Your task to perform on an android device: turn on notifications settings in the gmail app Image 0: 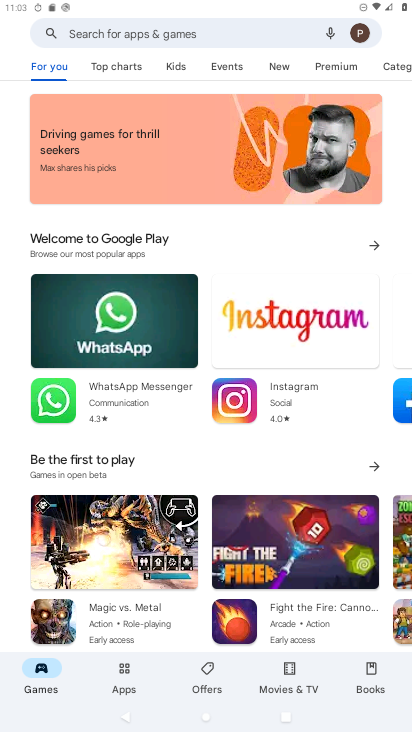
Step 0: press home button
Your task to perform on an android device: turn on notifications settings in the gmail app Image 1: 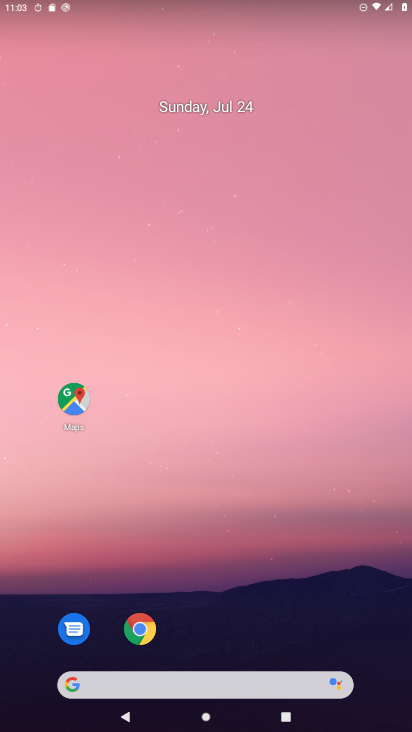
Step 1: drag from (237, 622) to (297, 155)
Your task to perform on an android device: turn on notifications settings in the gmail app Image 2: 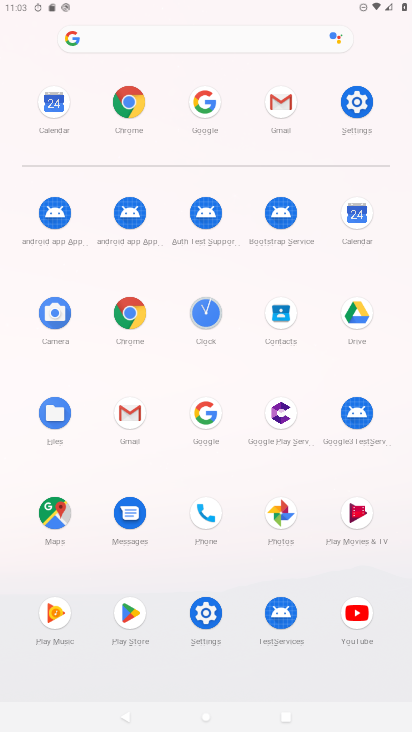
Step 2: click (122, 426)
Your task to perform on an android device: turn on notifications settings in the gmail app Image 3: 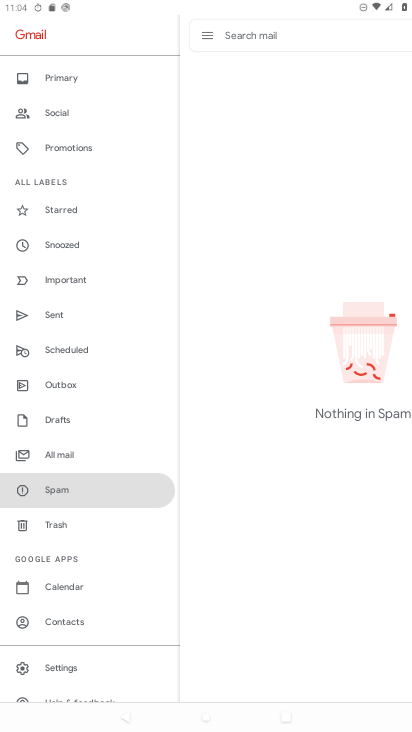
Step 3: click (79, 669)
Your task to perform on an android device: turn on notifications settings in the gmail app Image 4: 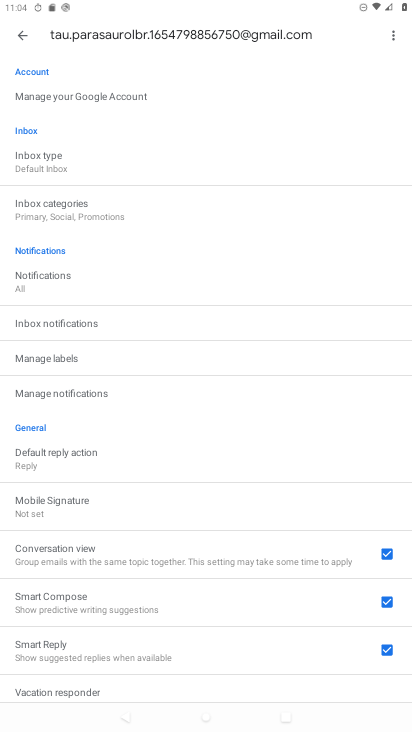
Step 4: click (27, 41)
Your task to perform on an android device: turn on notifications settings in the gmail app Image 5: 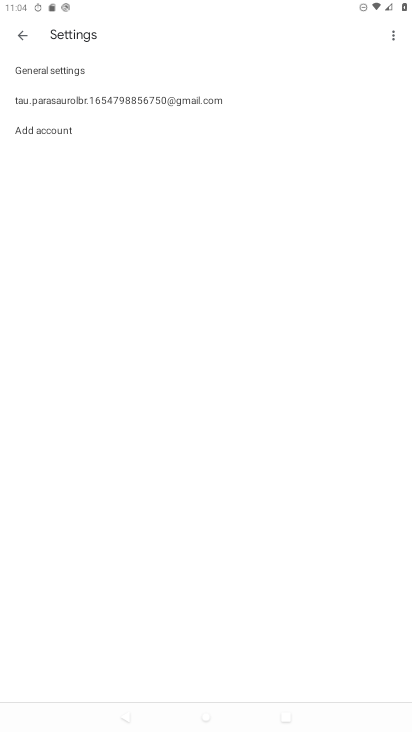
Step 5: click (77, 73)
Your task to perform on an android device: turn on notifications settings in the gmail app Image 6: 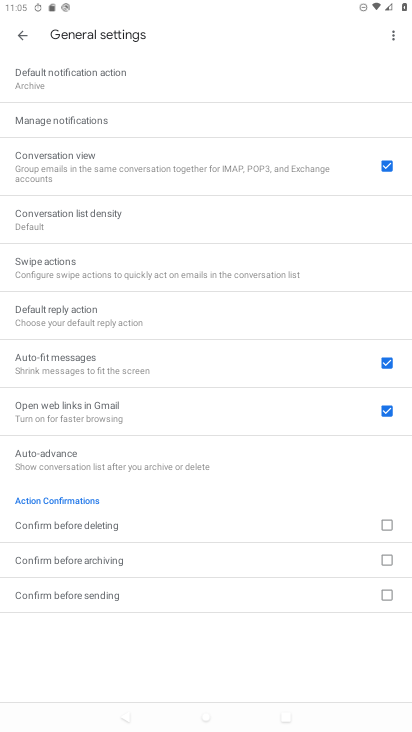
Step 6: click (40, 115)
Your task to perform on an android device: turn on notifications settings in the gmail app Image 7: 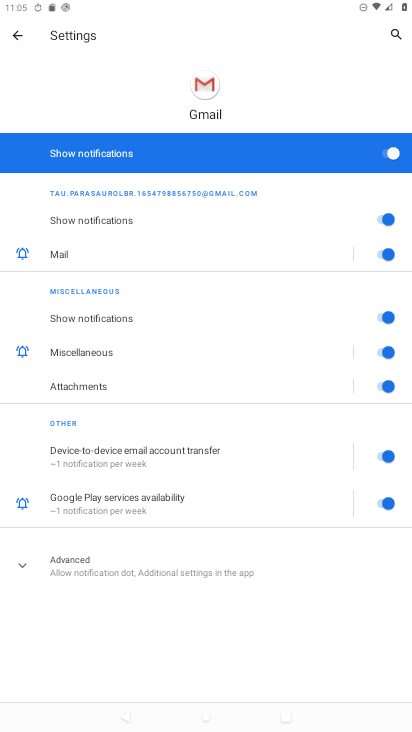
Step 7: task complete